Your task to perform on an android device: set the stopwatch Image 0: 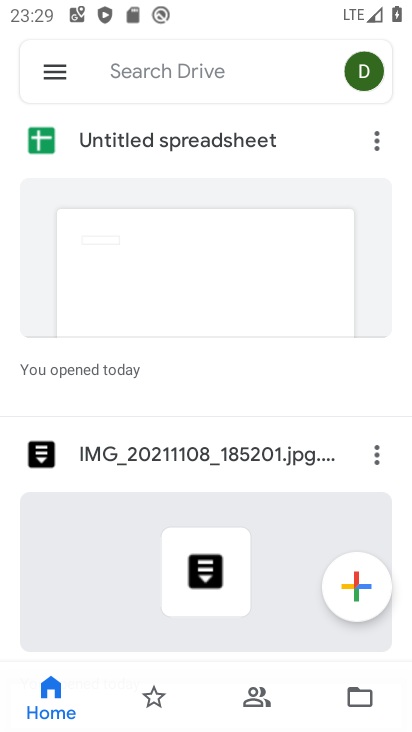
Step 0: press home button
Your task to perform on an android device: set the stopwatch Image 1: 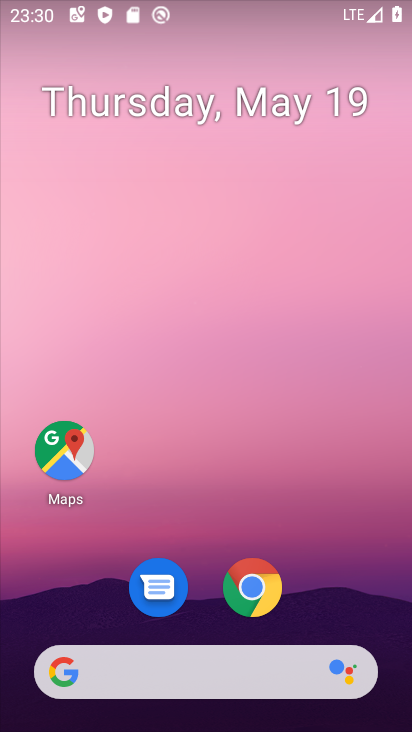
Step 1: drag from (275, 725) to (262, 167)
Your task to perform on an android device: set the stopwatch Image 2: 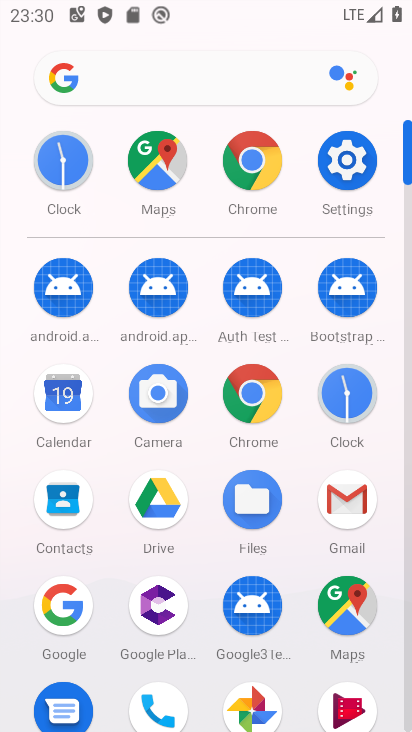
Step 2: click (333, 394)
Your task to perform on an android device: set the stopwatch Image 3: 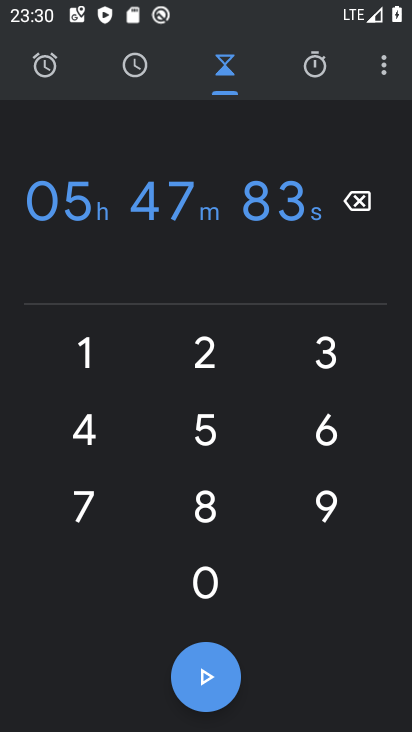
Step 3: click (317, 81)
Your task to perform on an android device: set the stopwatch Image 4: 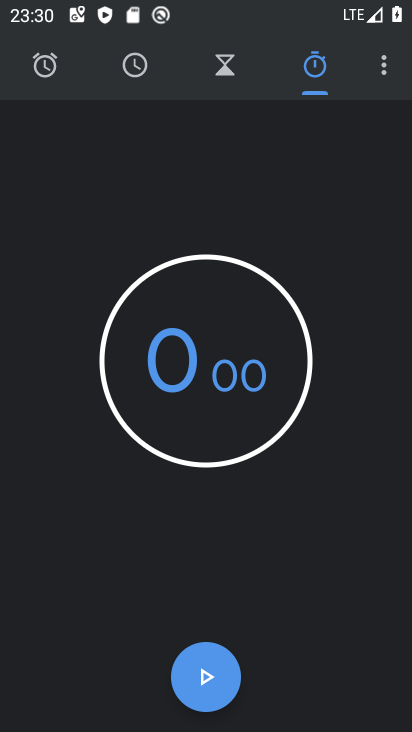
Step 4: task complete